Your task to perform on an android device: turn pop-ups on in chrome Image 0: 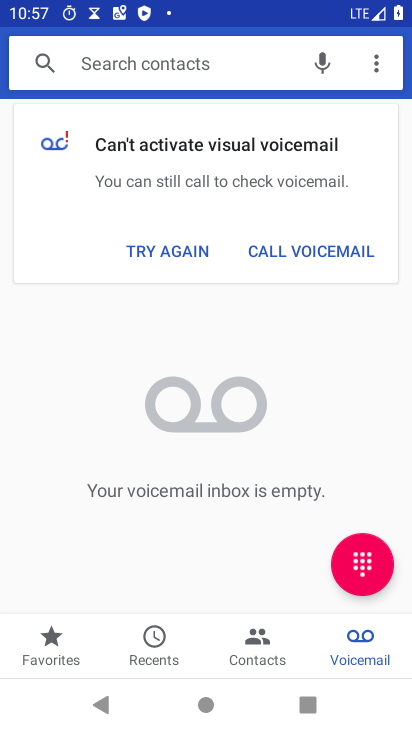
Step 0: press home button
Your task to perform on an android device: turn pop-ups on in chrome Image 1: 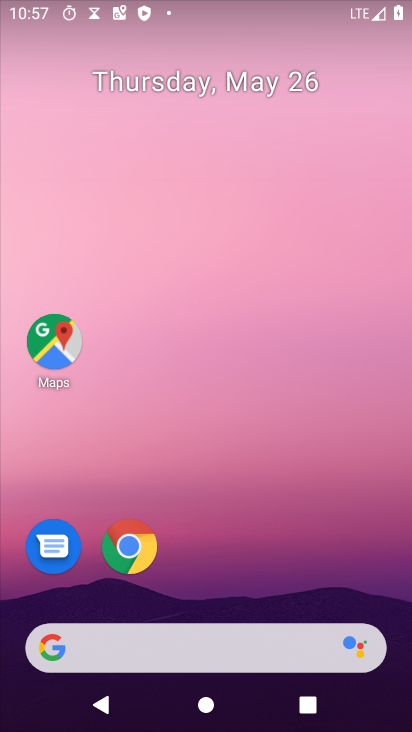
Step 1: drag from (356, 602) to (311, 117)
Your task to perform on an android device: turn pop-ups on in chrome Image 2: 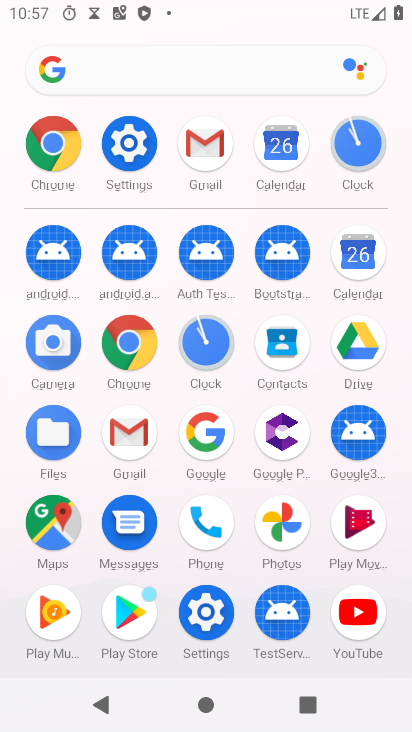
Step 2: click (120, 346)
Your task to perform on an android device: turn pop-ups on in chrome Image 3: 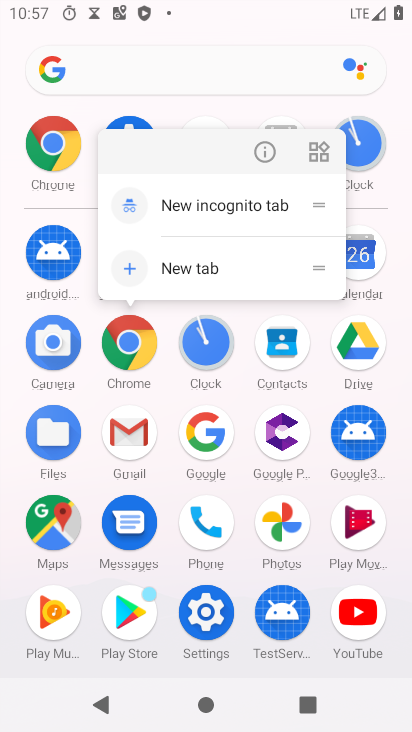
Step 3: click (120, 351)
Your task to perform on an android device: turn pop-ups on in chrome Image 4: 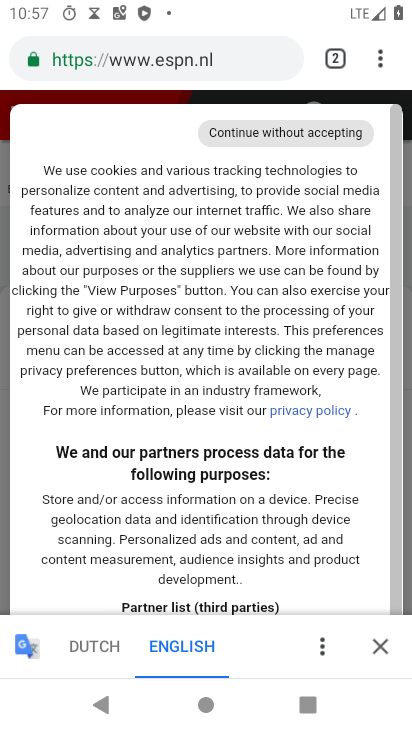
Step 4: click (374, 644)
Your task to perform on an android device: turn pop-ups on in chrome Image 5: 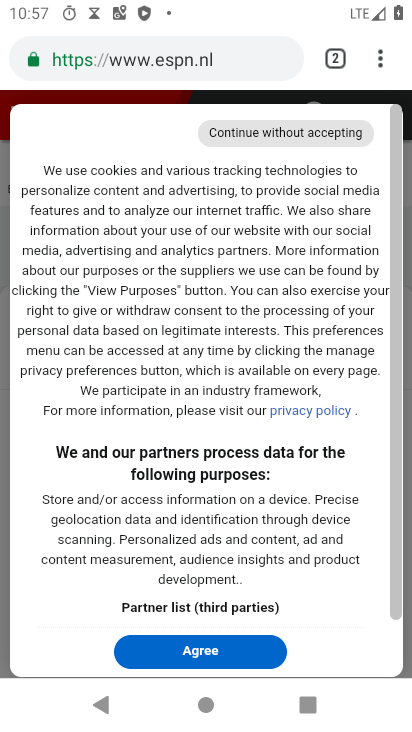
Step 5: drag from (356, 627) to (356, 468)
Your task to perform on an android device: turn pop-ups on in chrome Image 6: 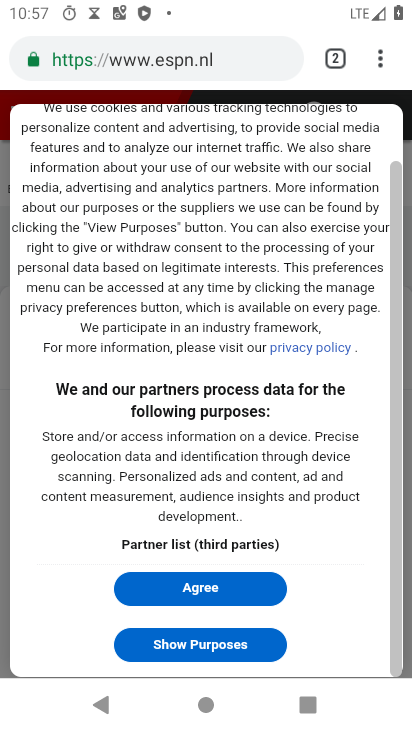
Step 6: click (216, 589)
Your task to perform on an android device: turn pop-ups on in chrome Image 7: 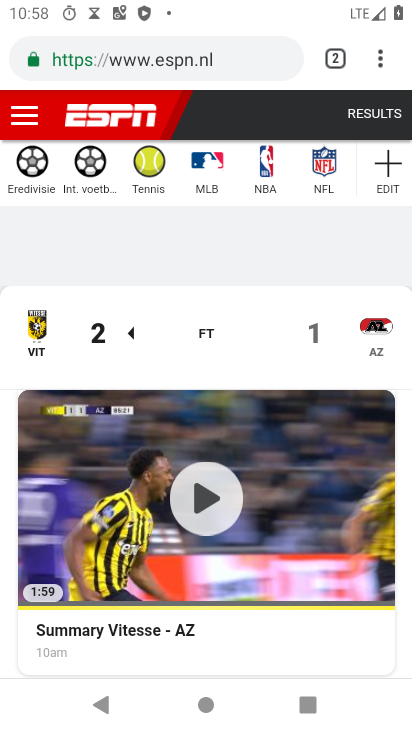
Step 7: drag from (393, 64) to (203, 569)
Your task to perform on an android device: turn pop-ups on in chrome Image 8: 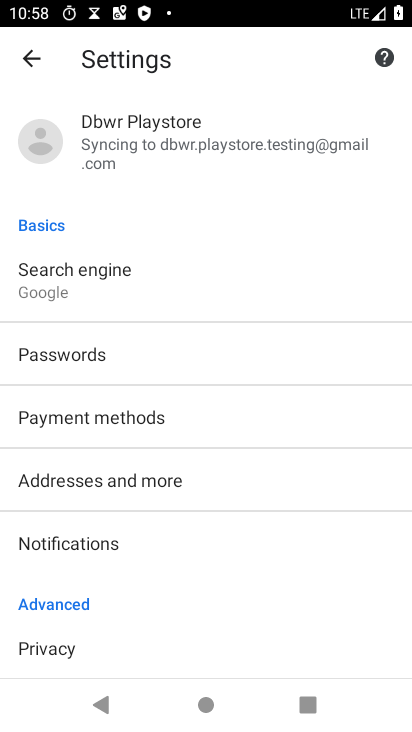
Step 8: drag from (193, 603) to (206, 298)
Your task to perform on an android device: turn pop-ups on in chrome Image 9: 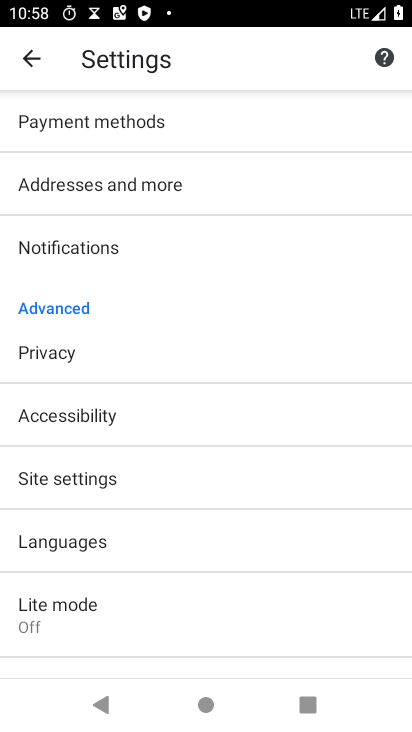
Step 9: drag from (119, 613) to (159, 479)
Your task to perform on an android device: turn pop-ups on in chrome Image 10: 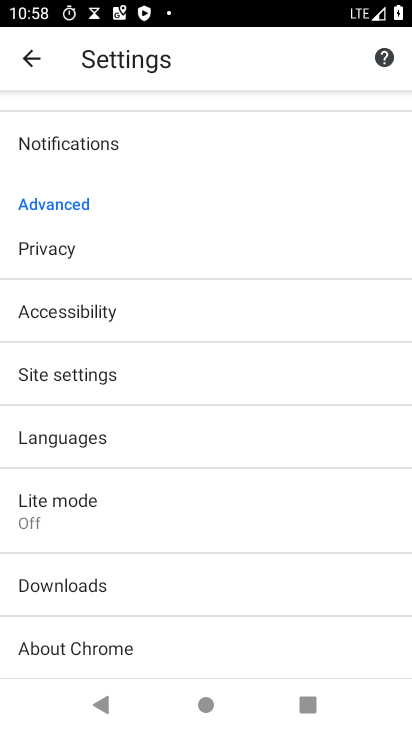
Step 10: click (141, 377)
Your task to perform on an android device: turn pop-ups on in chrome Image 11: 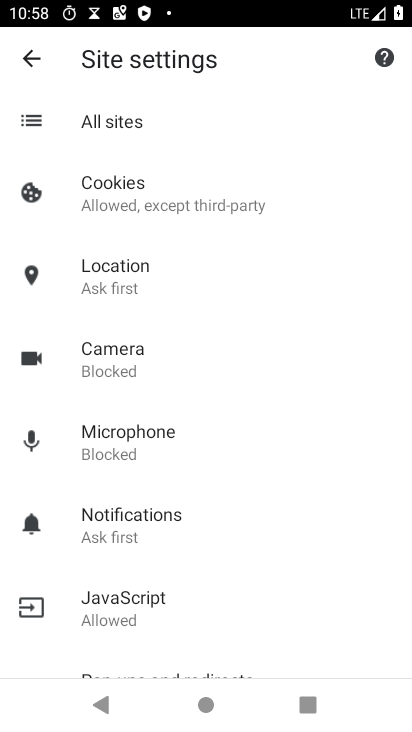
Step 11: drag from (217, 632) to (260, 363)
Your task to perform on an android device: turn pop-ups on in chrome Image 12: 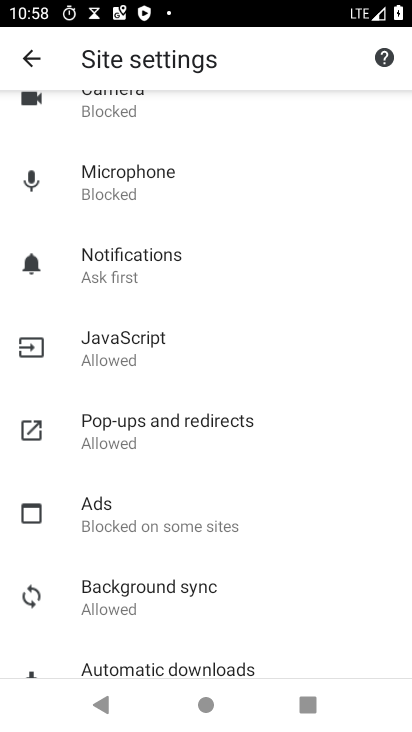
Step 12: click (220, 422)
Your task to perform on an android device: turn pop-ups on in chrome Image 13: 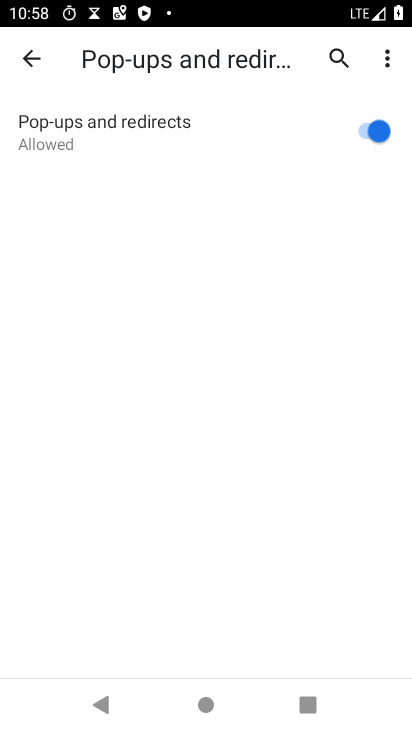
Step 13: task complete